Your task to perform on an android device: Go to Reddit.com Image 0: 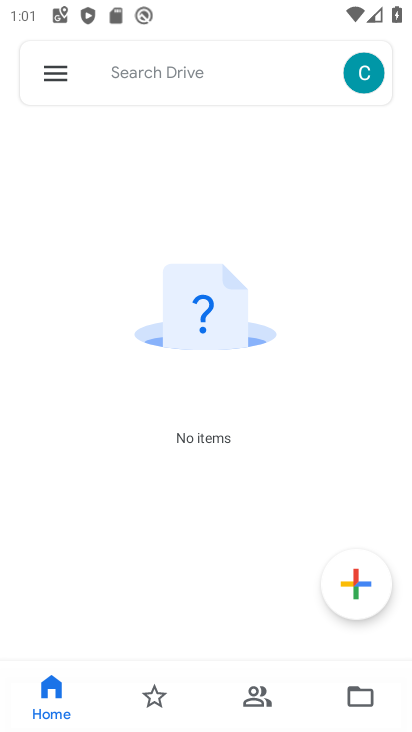
Step 0: press home button
Your task to perform on an android device: Go to Reddit.com Image 1: 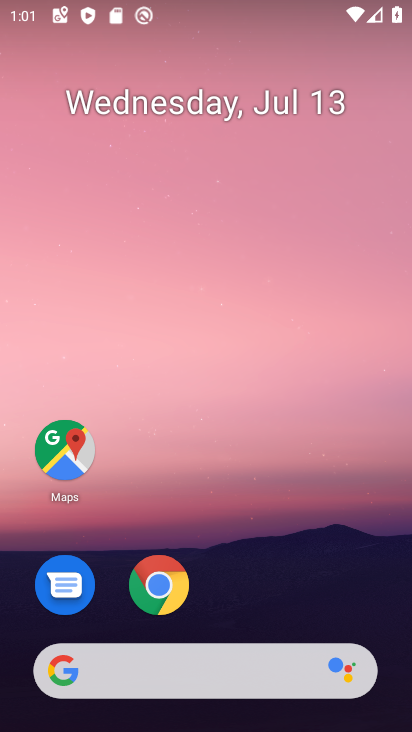
Step 1: click (159, 596)
Your task to perform on an android device: Go to Reddit.com Image 2: 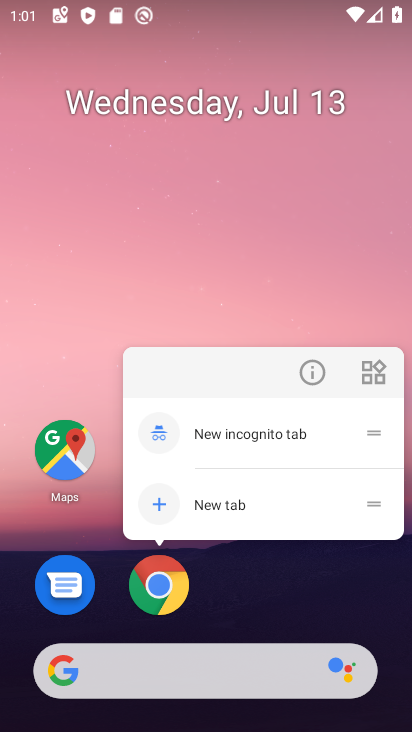
Step 2: click (166, 587)
Your task to perform on an android device: Go to Reddit.com Image 3: 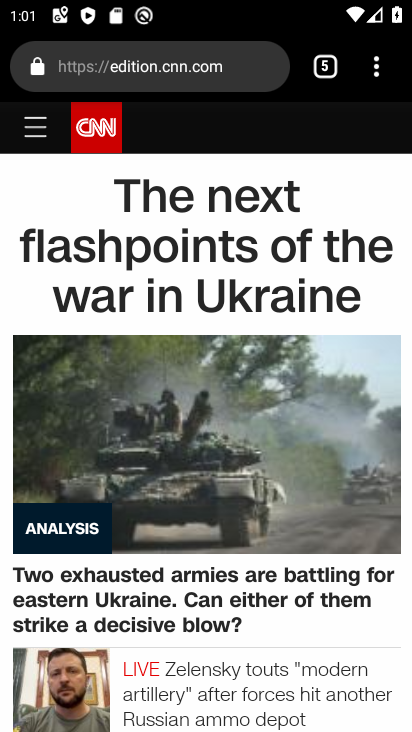
Step 3: drag from (381, 60) to (242, 132)
Your task to perform on an android device: Go to Reddit.com Image 4: 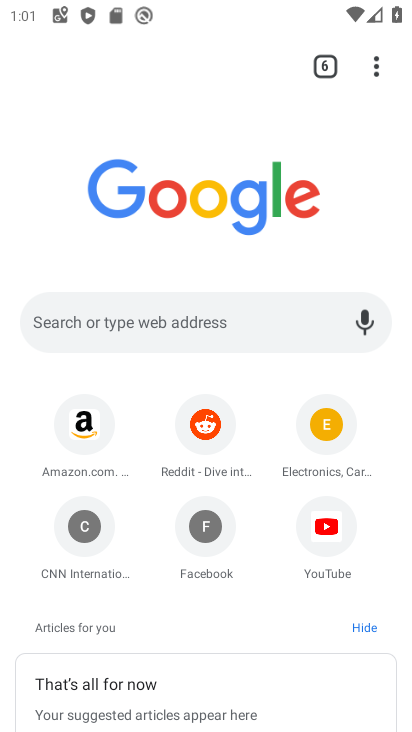
Step 4: click (201, 417)
Your task to perform on an android device: Go to Reddit.com Image 5: 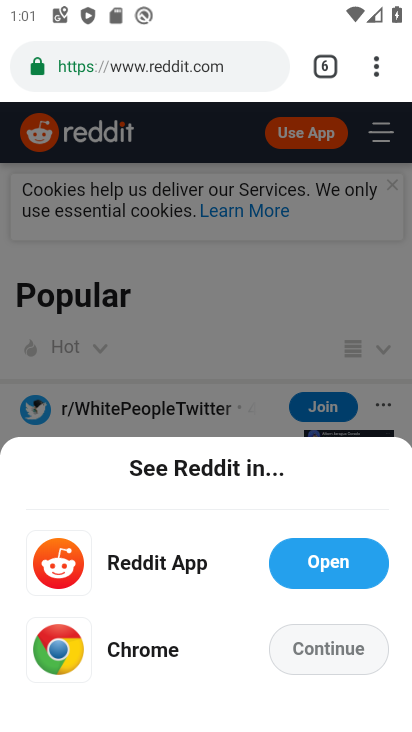
Step 5: task complete